Your task to perform on an android device: open a bookmark in the chrome app Image 0: 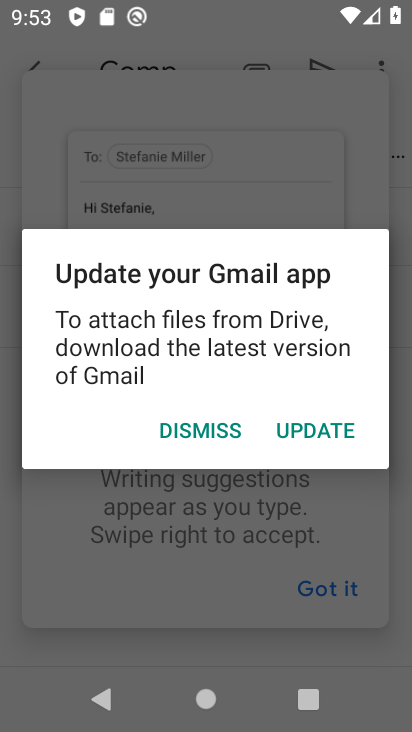
Step 0: press home button
Your task to perform on an android device: open a bookmark in the chrome app Image 1: 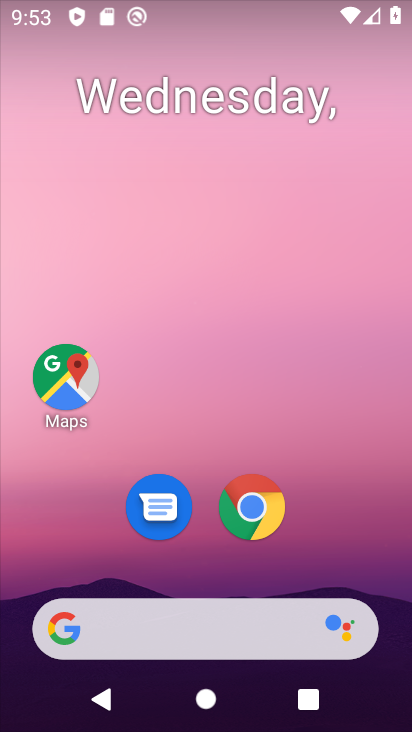
Step 1: drag from (253, 630) to (334, 155)
Your task to perform on an android device: open a bookmark in the chrome app Image 2: 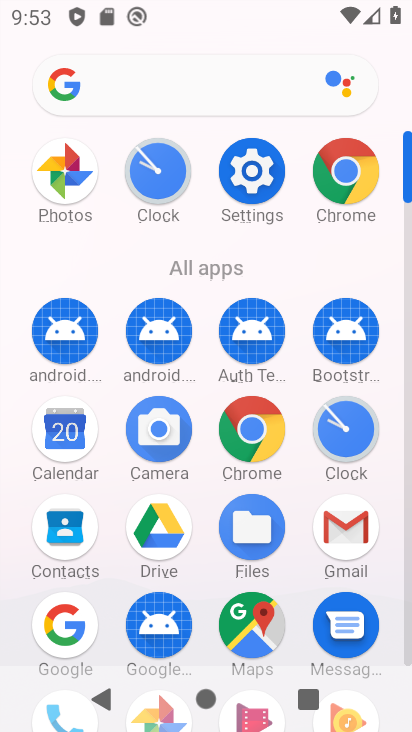
Step 2: click (252, 181)
Your task to perform on an android device: open a bookmark in the chrome app Image 3: 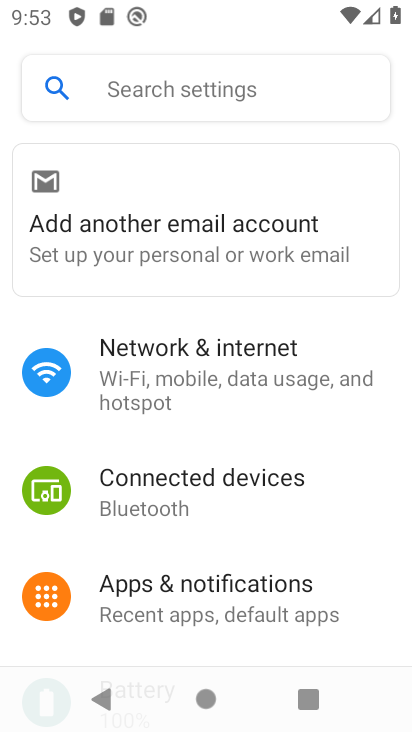
Step 3: press home button
Your task to perform on an android device: open a bookmark in the chrome app Image 4: 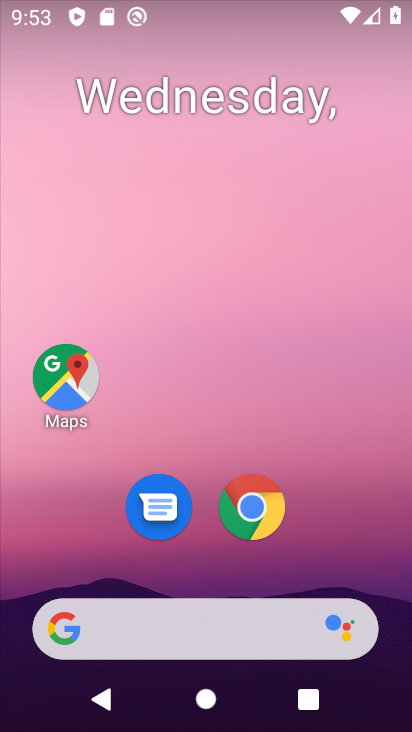
Step 4: drag from (265, 656) to (380, 203)
Your task to perform on an android device: open a bookmark in the chrome app Image 5: 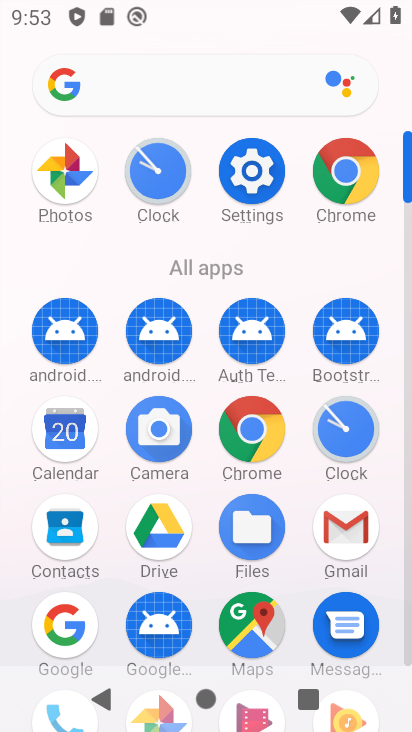
Step 5: click (330, 181)
Your task to perform on an android device: open a bookmark in the chrome app Image 6: 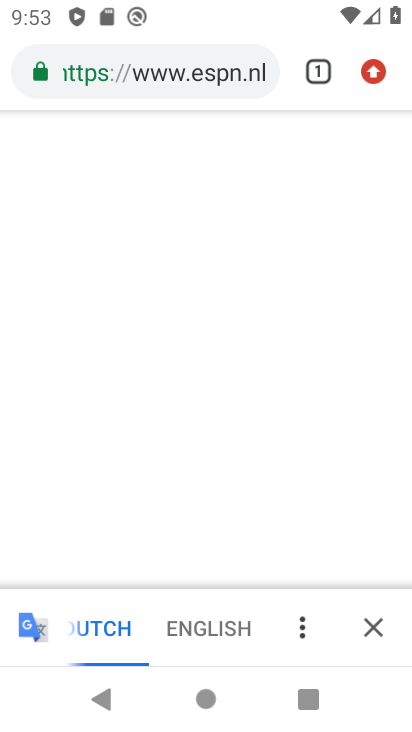
Step 6: click (368, 79)
Your task to perform on an android device: open a bookmark in the chrome app Image 7: 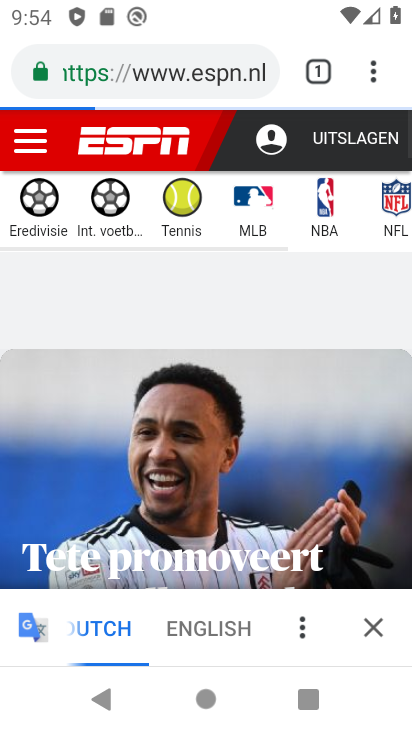
Step 7: click (371, 74)
Your task to perform on an android device: open a bookmark in the chrome app Image 8: 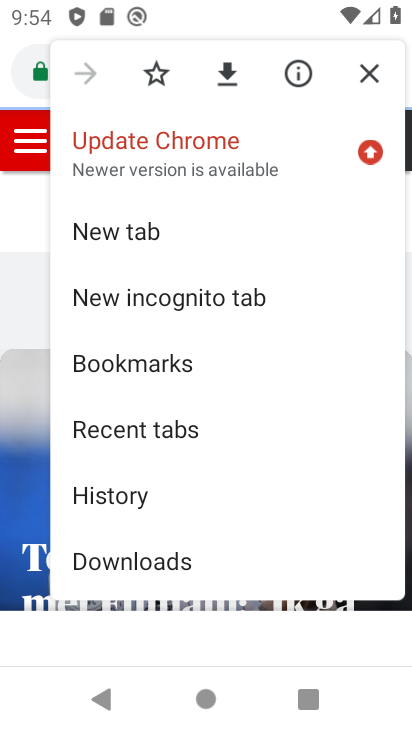
Step 8: click (127, 364)
Your task to perform on an android device: open a bookmark in the chrome app Image 9: 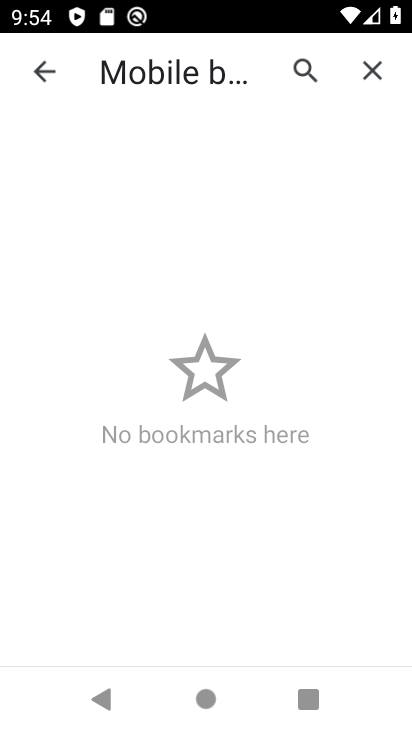
Step 9: task complete